Your task to perform on an android device: make emails show in primary in the gmail app Image 0: 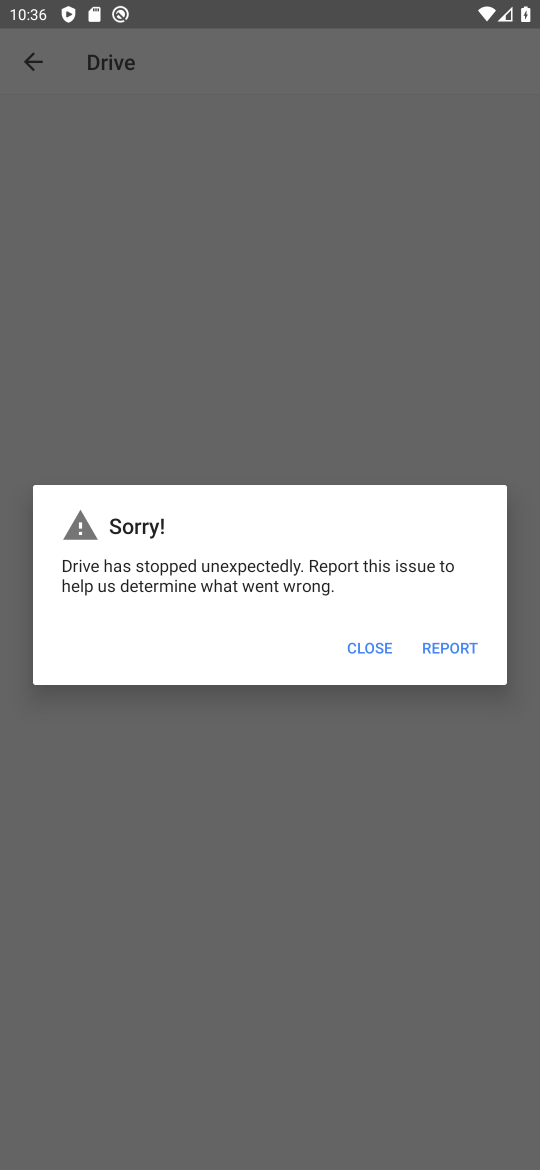
Step 0: task complete